Your task to perform on an android device: turn on wifi Image 0: 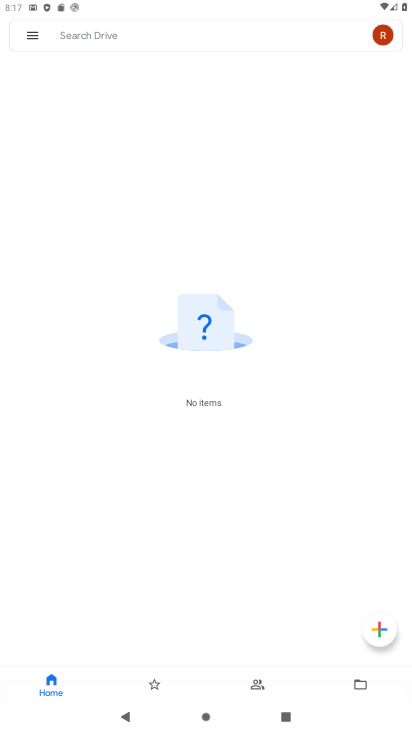
Step 0: press home button
Your task to perform on an android device: turn on wifi Image 1: 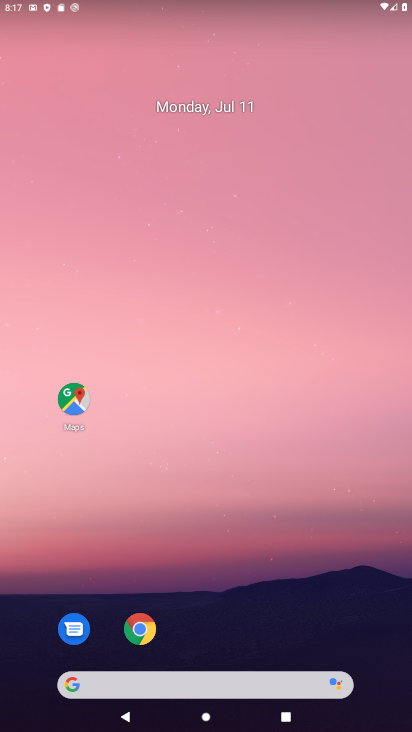
Step 1: drag from (200, 493) to (232, 10)
Your task to perform on an android device: turn on wifi Image 2: 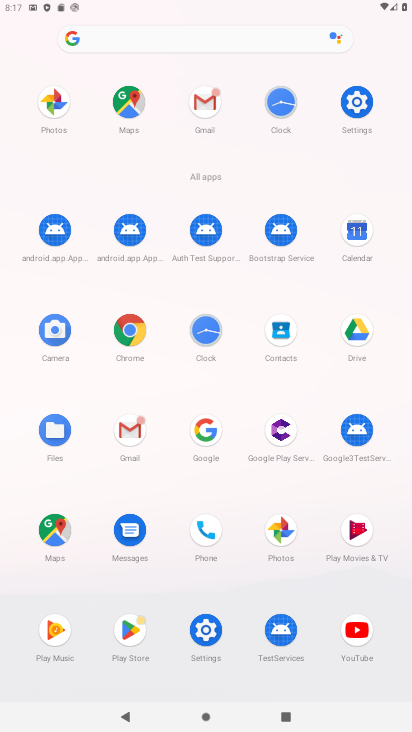
Step 2: click (210, 630)
Your task to perform on an android device: turn on wifi Image 3: 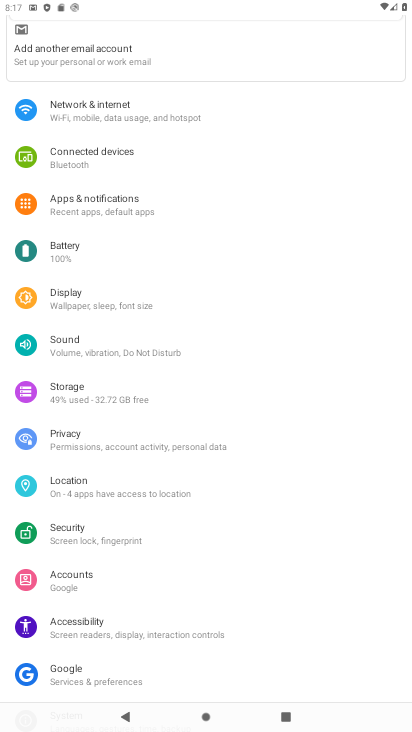
Step 3: click (121, 116)
Your task to perform on an android device: turn on wifi Image 4: 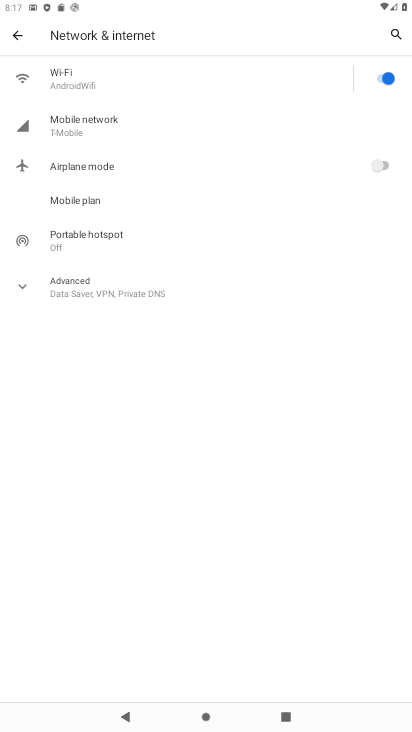
Step 4: task complete